Your task to perform on an android device: stop showing notifications on the lock screen Image 0: 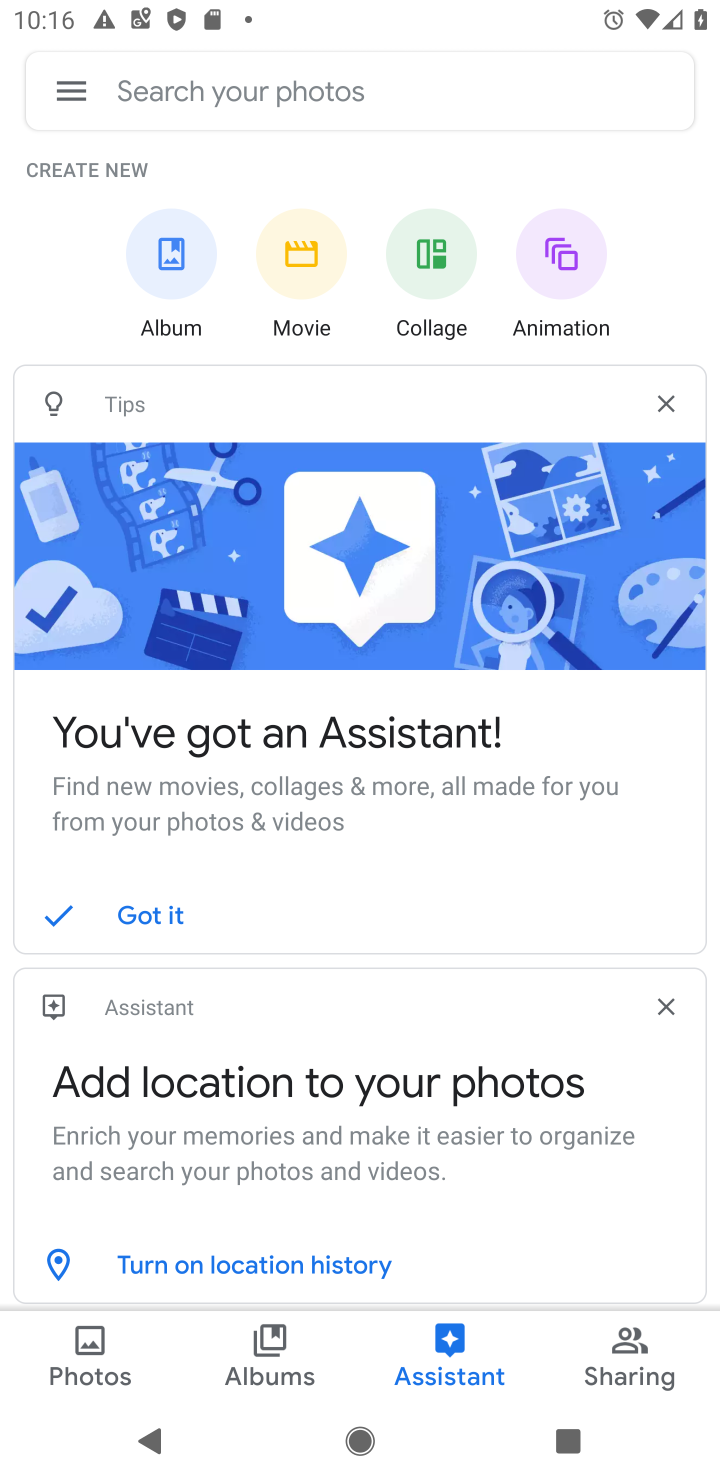
Step 0: press home button
Your task to perform on an android device: stop showing notifications on the lock screen Image 1: 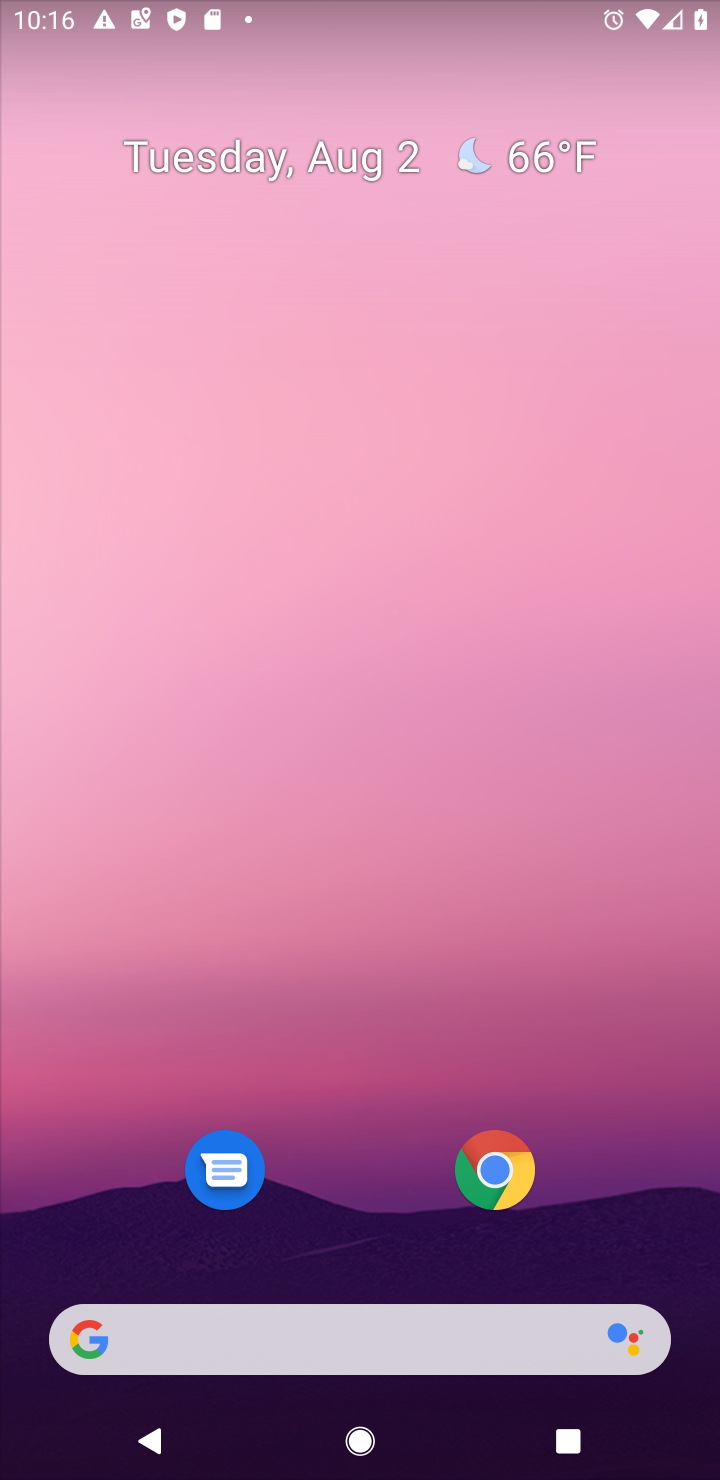
Step 1: drag from (314, 1236) to (413, 256)
Your task to perform on an android device: stop showing notifications on the lock screen Image 2: 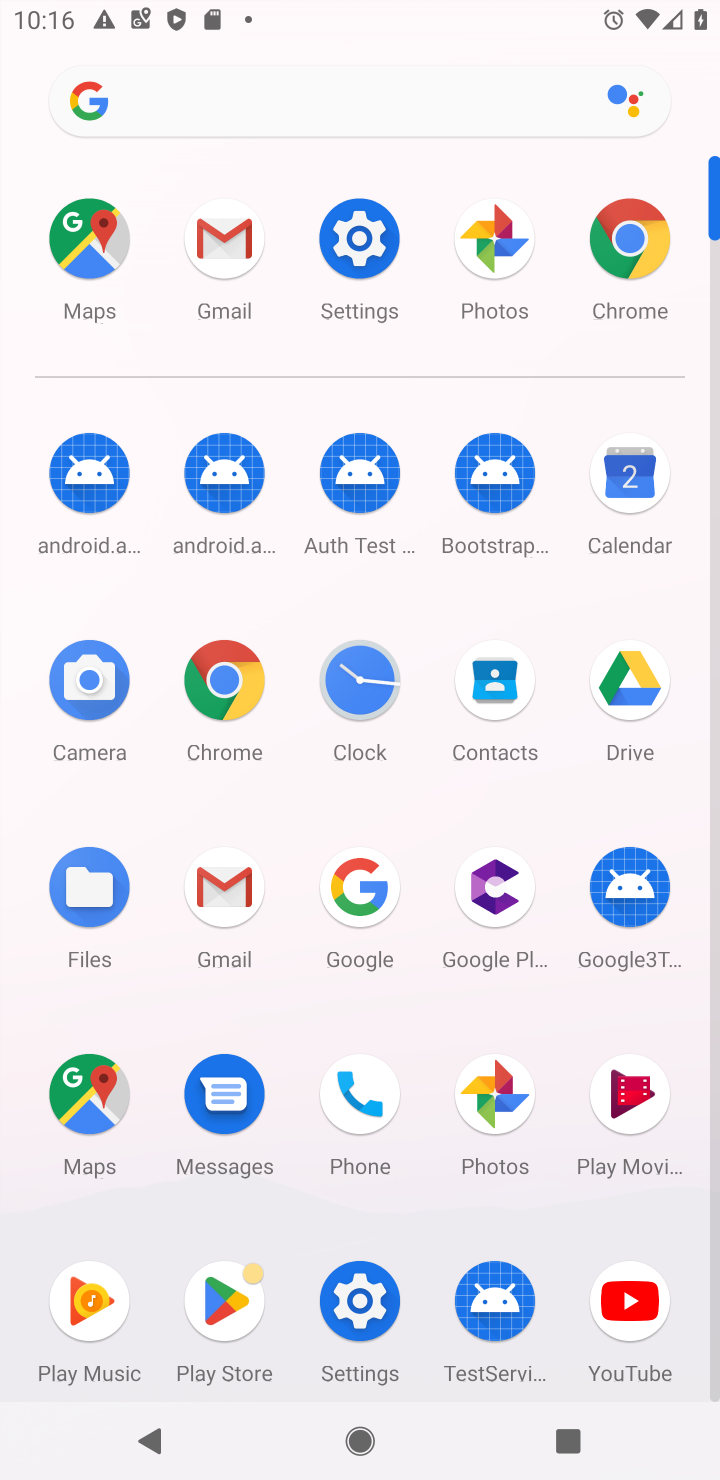
Step 2: click (356, 247)
Your task to perform on an android device: stop showing notifications on the lock screen Image 3: 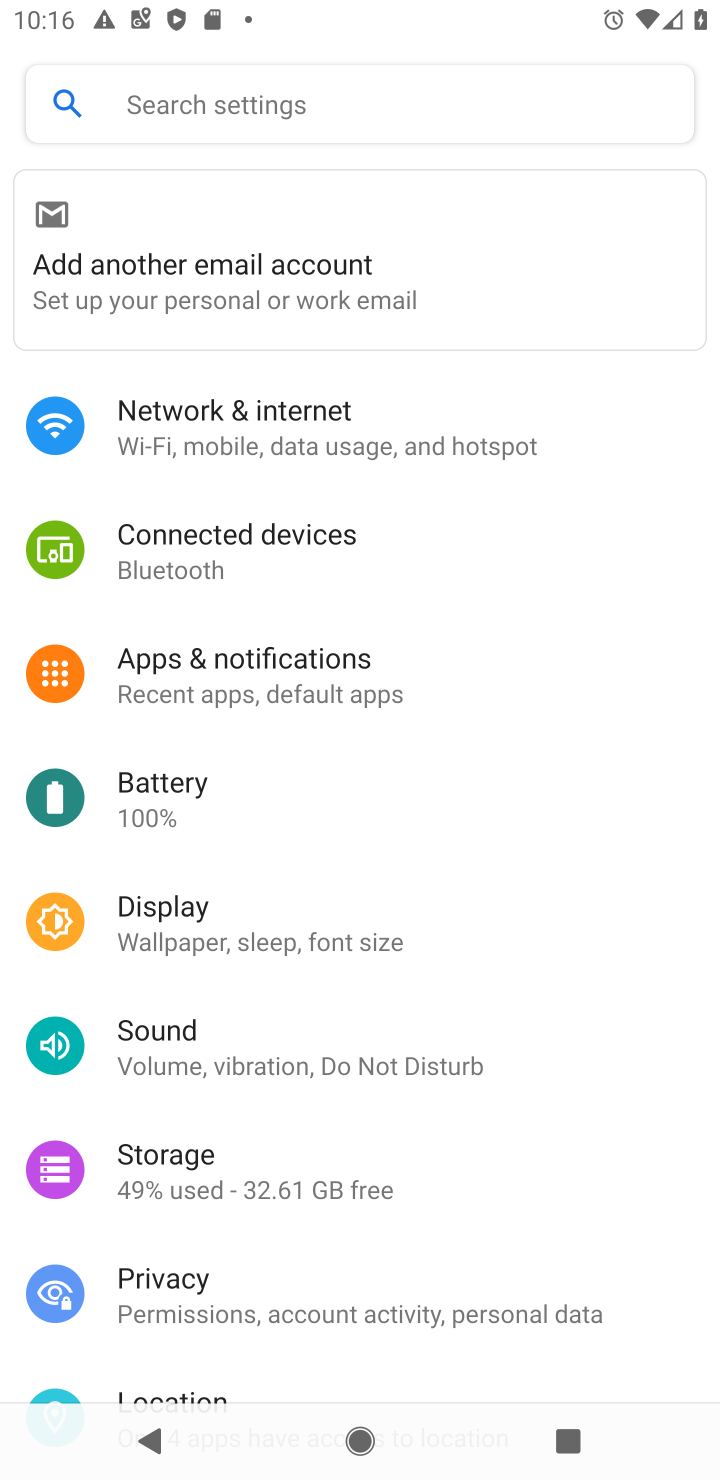
Step 3: click (222, 687)
Your task to perform on an android device: stop showing notifications on the lock screen Image 4: 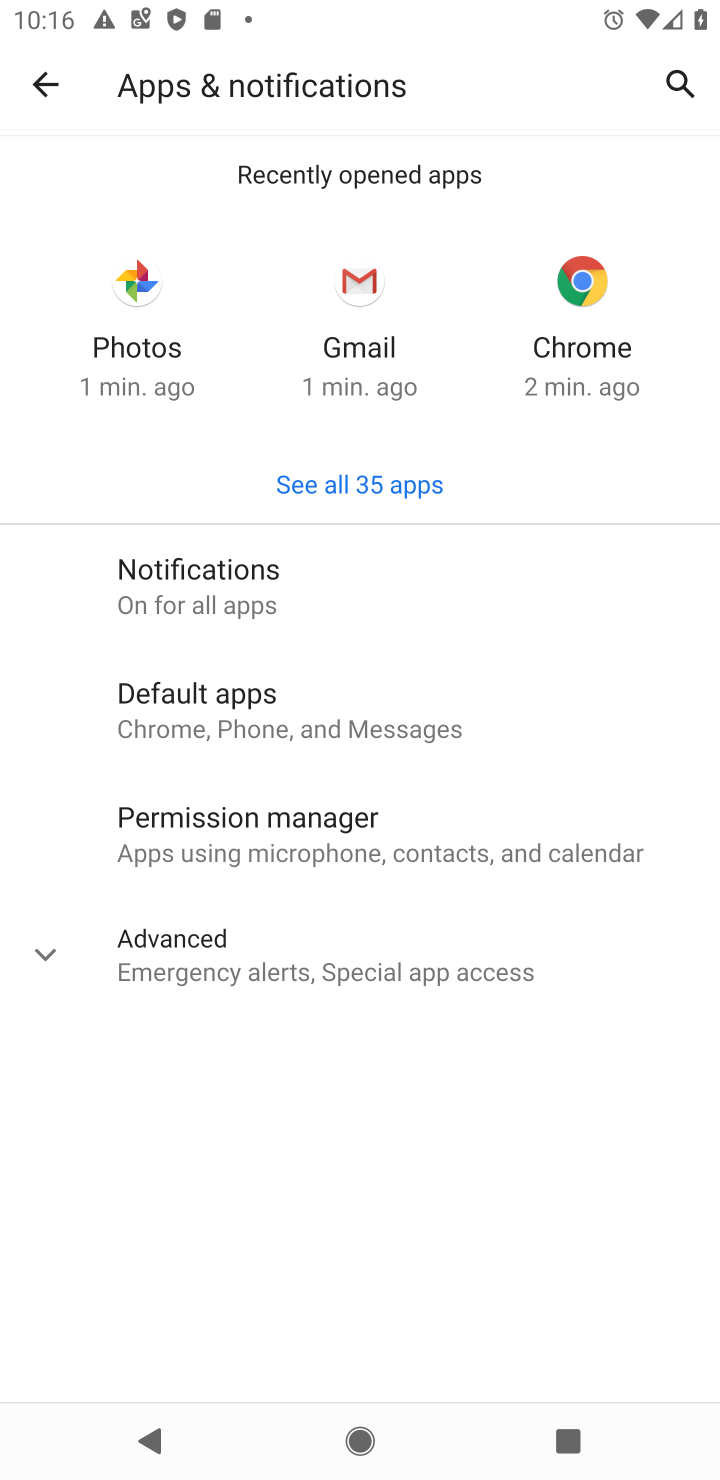
Step 4: click (184, 584)
Your task to perform on an android device: stop showing notifications on the lock screen Image 5: 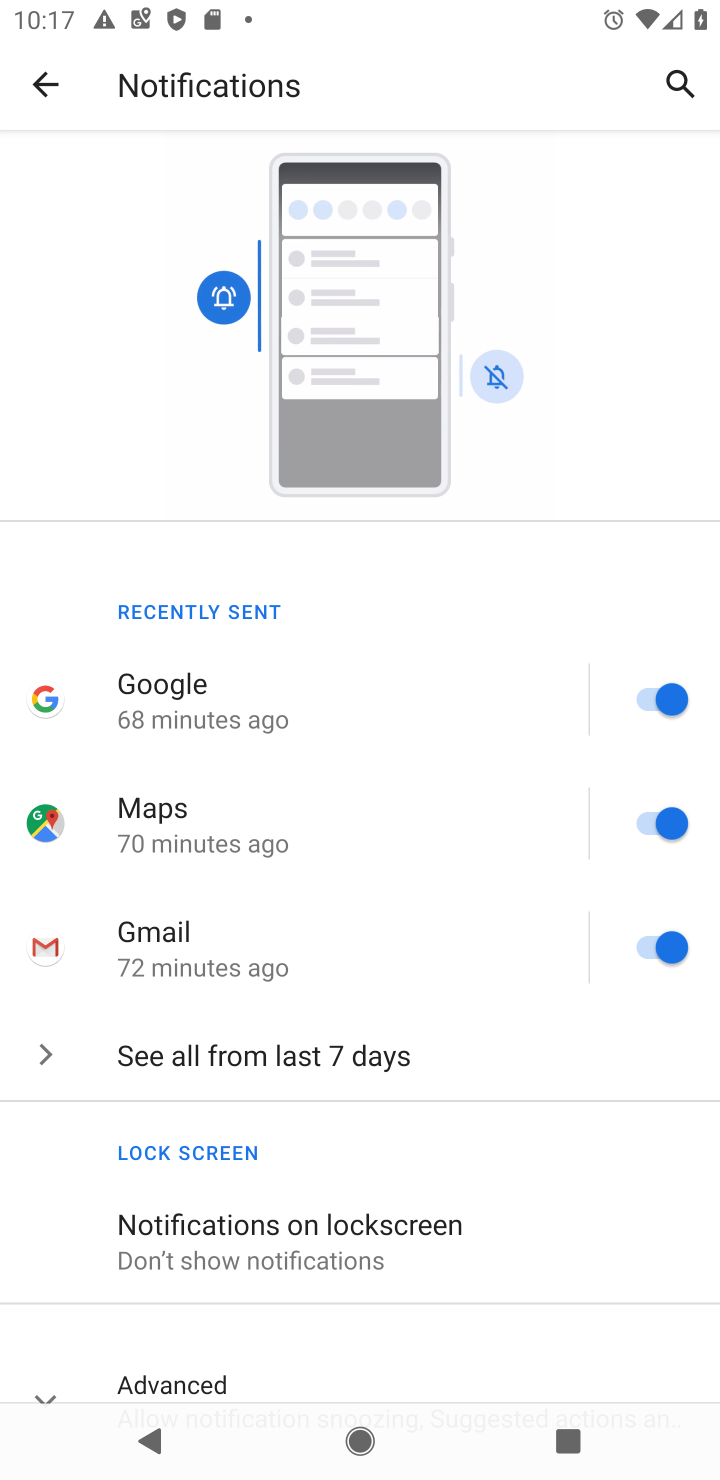
Step 5: click (267, 1248)
Your task to perform on an android device: stop showing notifications on the lock screen Image 6: 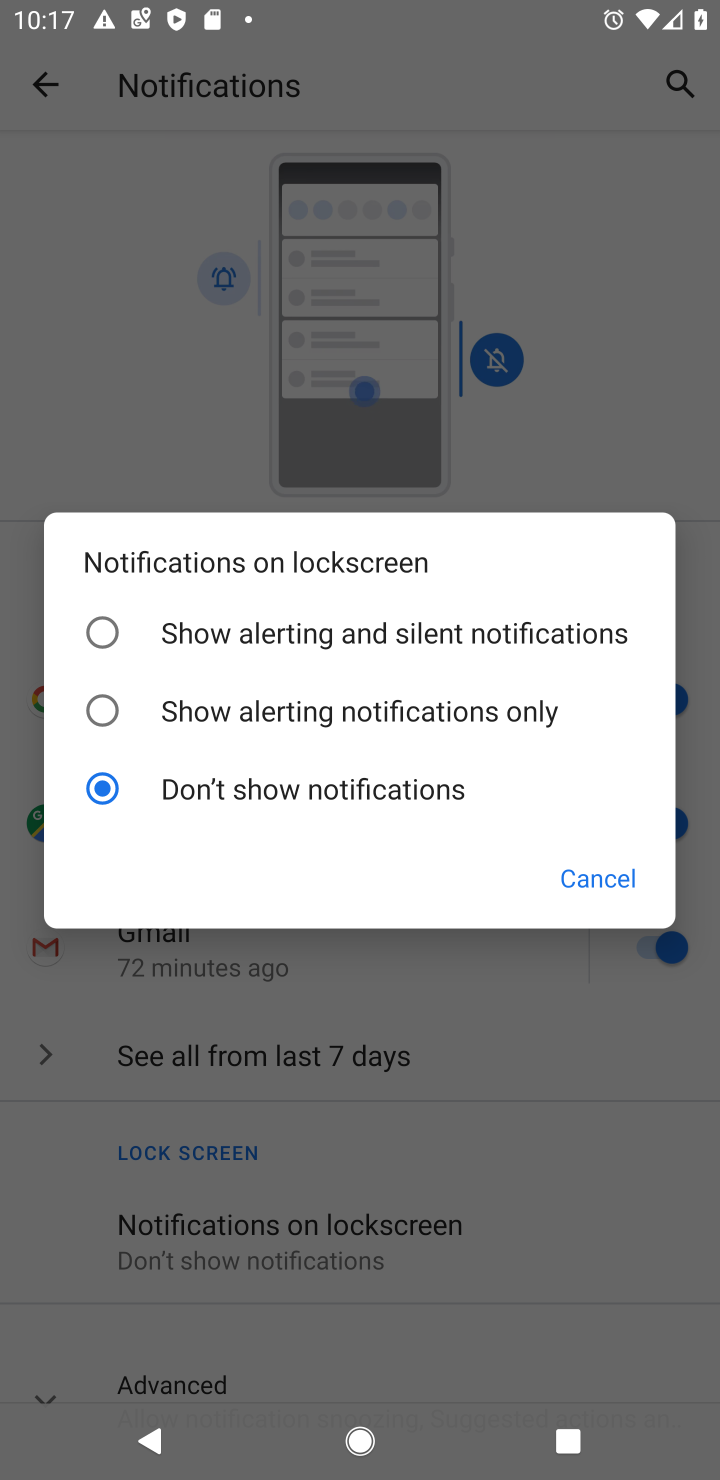
Step 6: task complete